Your task to perform on an android device: change the clock style Image 0: 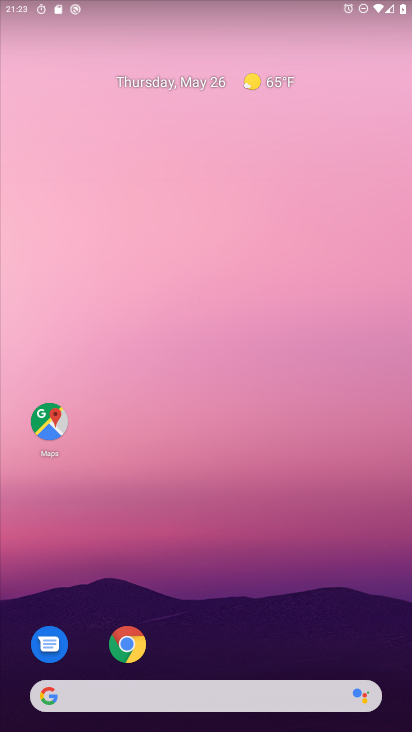
Step 0: drag from (178, 630) to (259, 130)
Your task to perform on an android device: change the clock style Image 1: 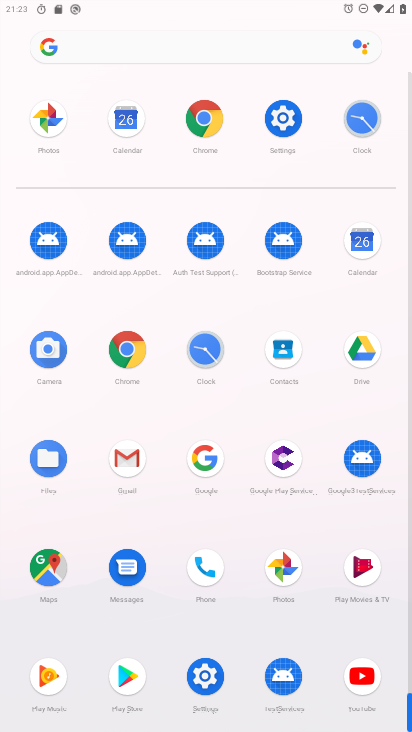
Step 1: click (197, 359)
Your task to perform on an android device: change the clock style Image 2: 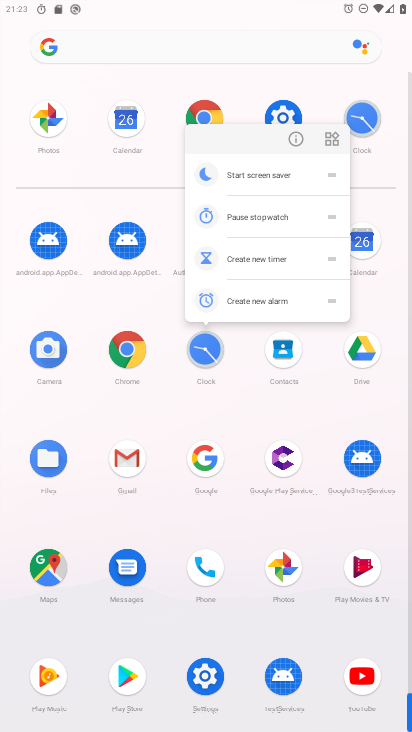
Step 2: click (304, 134)
Your task to perform on an android device: change the clock style Image 3: 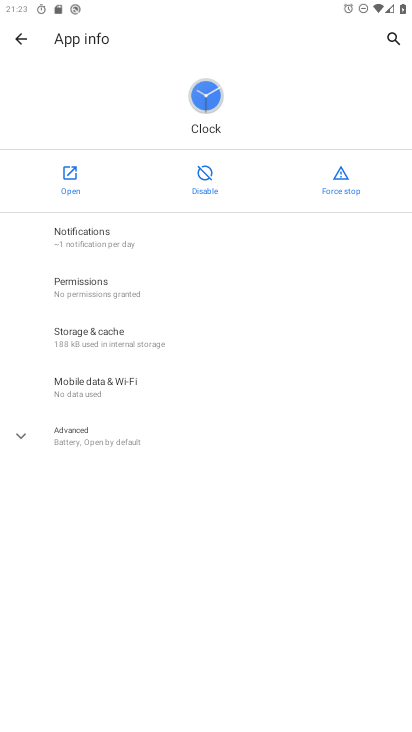
Step 3: click (83, 171)
Your task to perform on an android device: change the clock style Image 4: 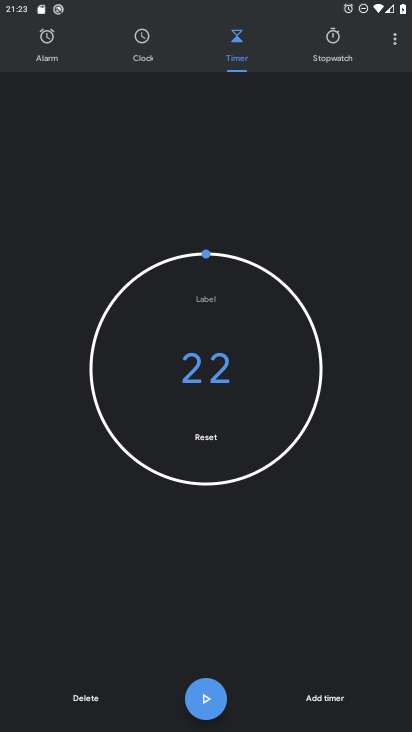
Step 4: click (391, 50)
Your task to perform on an android device: change the clock style Image 5: 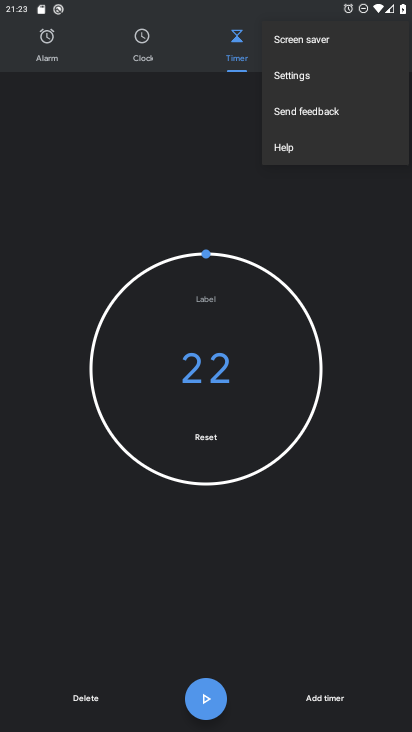
Step 5: click (302, 92)
Your task to perform on an android device: change the clock style Image 6: 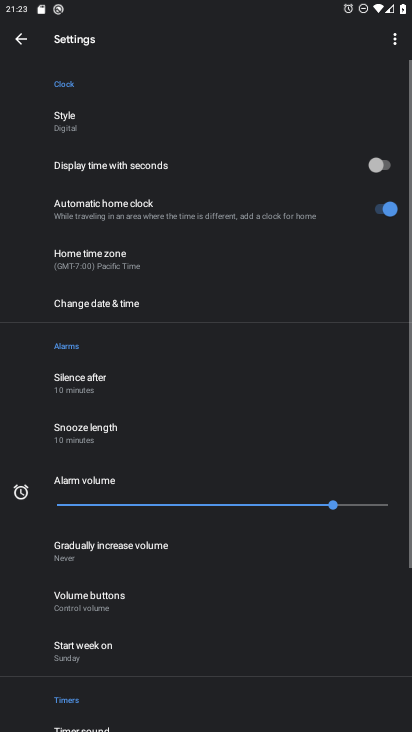
Step 6: click (101, 135)
Your task to perform on an android device: change the clock style Image 7: 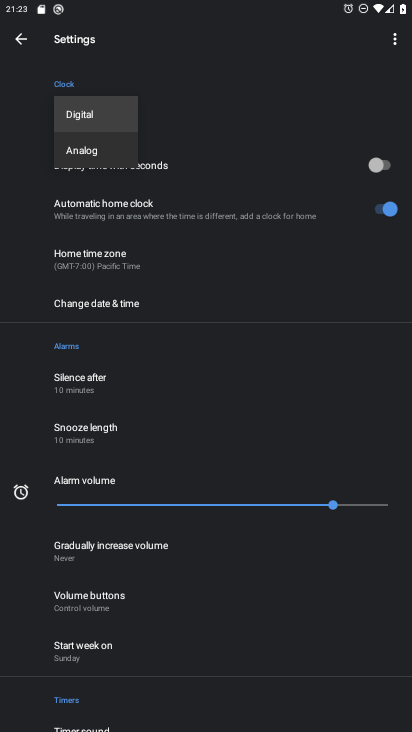
Step 7: click (95, 151)
Your task to perform on an android device: change the clock style Image 8: 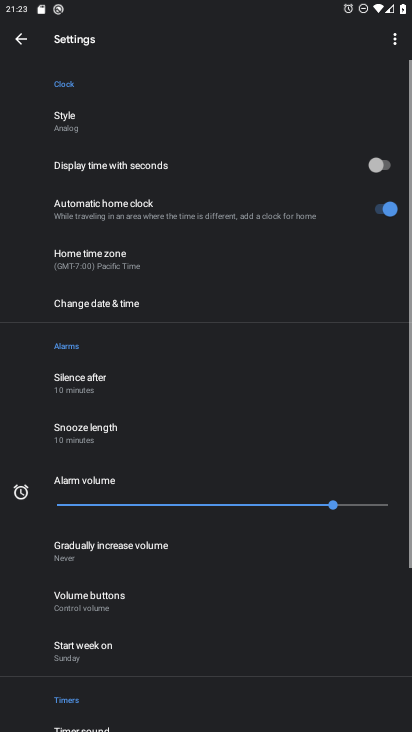
Step 8: task complete